Your task to perform on an android device: Open calendar and show me the first week of next month Image 0: 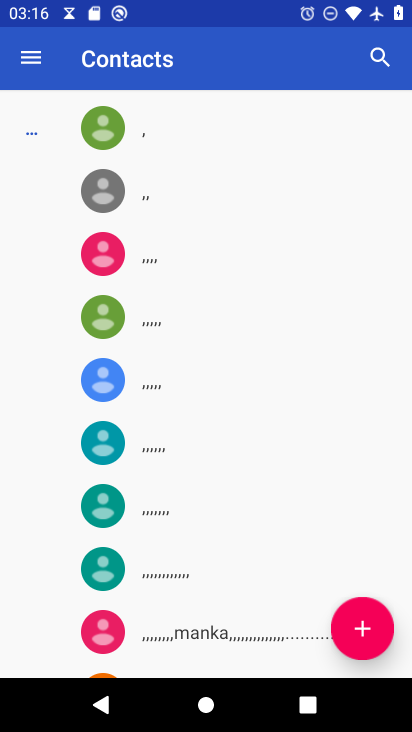
Step 0: press home button
Your task to perform on an android device: Open calendar and show me the first week of next month Image 1: 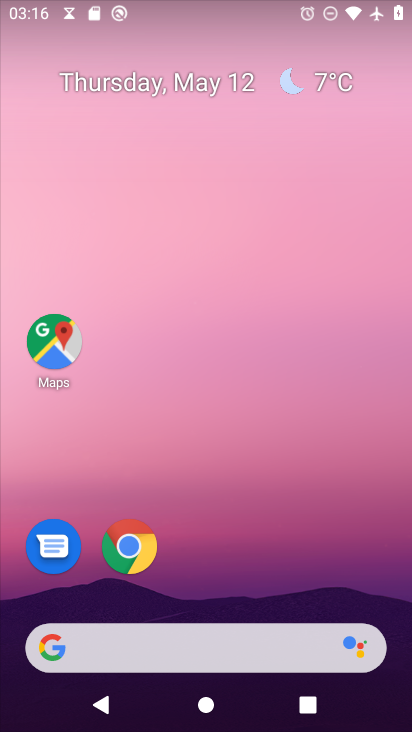
Step 1: drag from (153, 640) to (291, 193)
Your task to perform on an android device: Open calendar and show me the first week of next month Image 2: 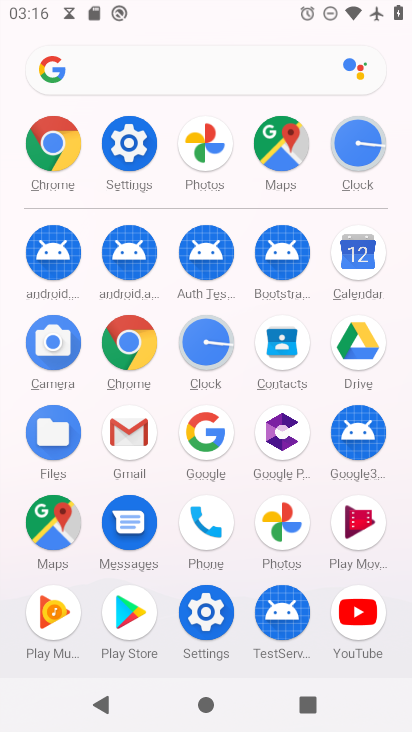
Step 2: click (355, 262)
Your task to perform on an android device: Open calendar and show me the first week of next month Image 3: 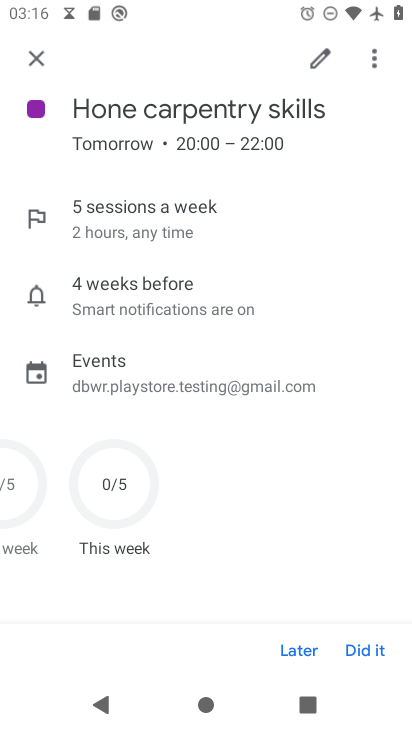
Step 3: click (34, 49)
Your task to perform on an android device: Open calendar and show me the first week of next month Image 4: 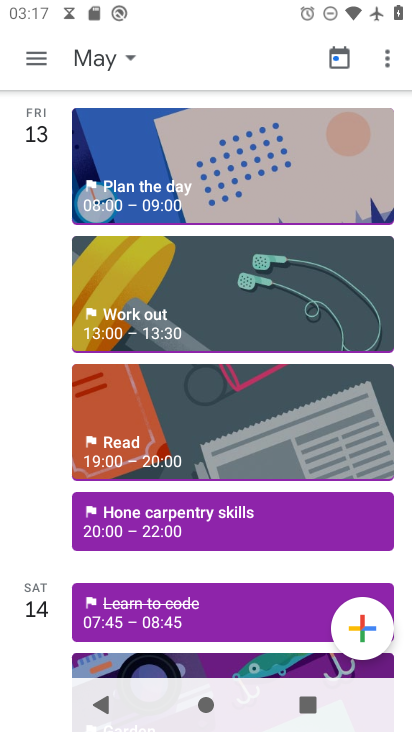
Step 4: click (109, 60)
Your task to perform on an android device: Open calendar and show me the first week of next month Image 5: 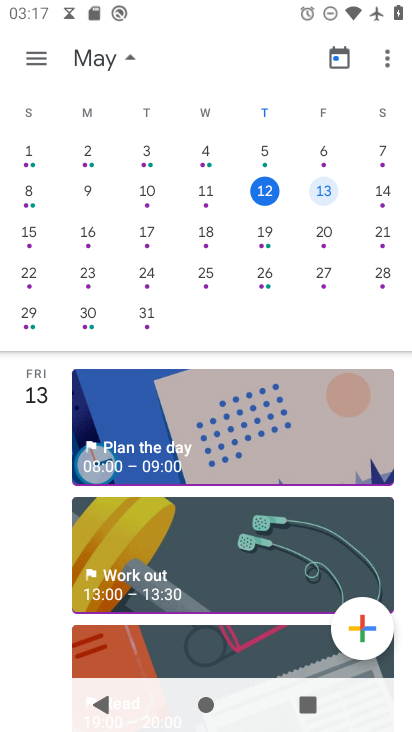
Step 5: drag from (385, 249) to (129, 253)
Your task to perform on an android device: Open calendar and show me the first week of next month Image 6: 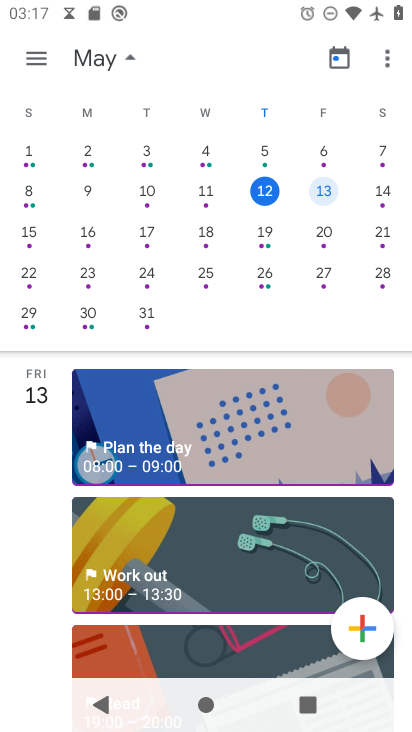
Step 6: drag from (377, 203) to (7, 201)
Your task to perform on an android device: Open calendar and show me the first week of next month Image 7: 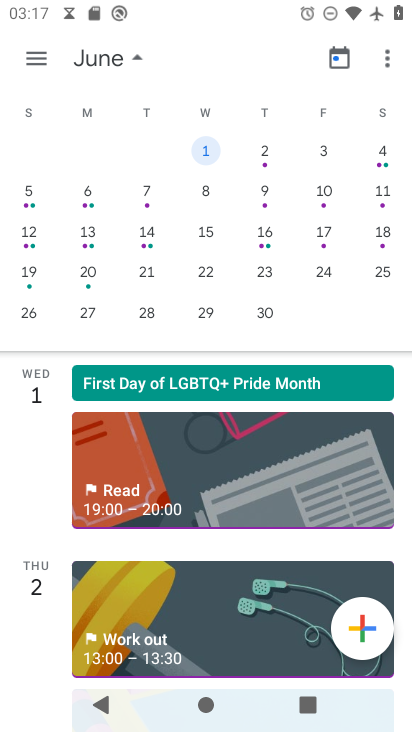
Step 7: click (205, 146)
Your task to perform on an android device: Open calendar and show me the first week of next month Image 8: 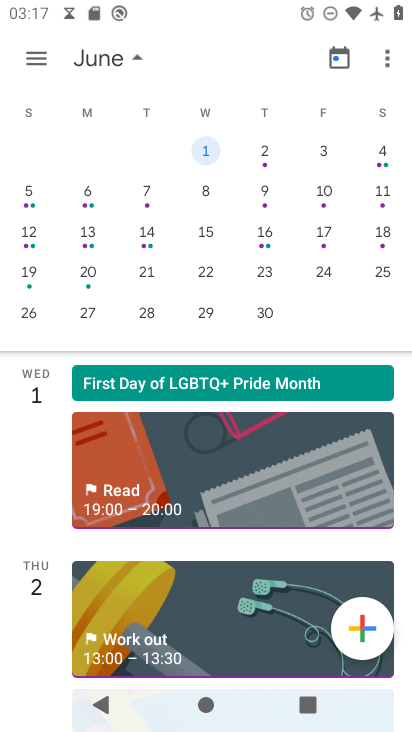
Step 8: click (36, 63)
Your task to perform on an android device: Open calendar and show me the first week of next month Image 9: 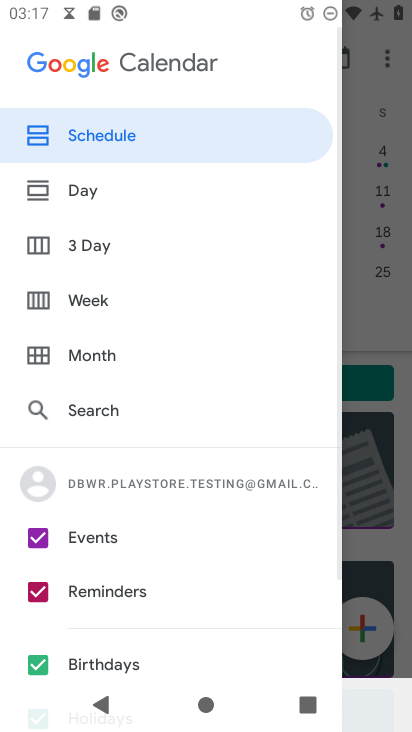
Step 9: click (103, 305)
Your task to perform on an android device: Open calendar and show me the first week of next month Image 10: 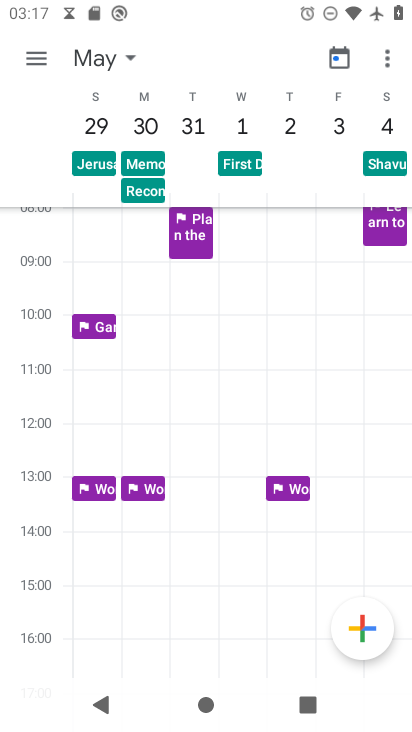
Step 10: task complete